Your task to perform on an android device: open chrome and create a bookmark for the current page Image 0: 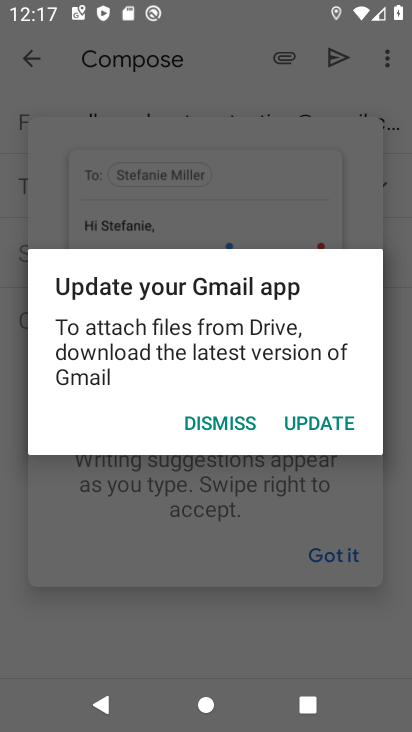
Step 0: press home button
Your task to perform on an android device: open chrome and create a bookmark for the current page Image 1: 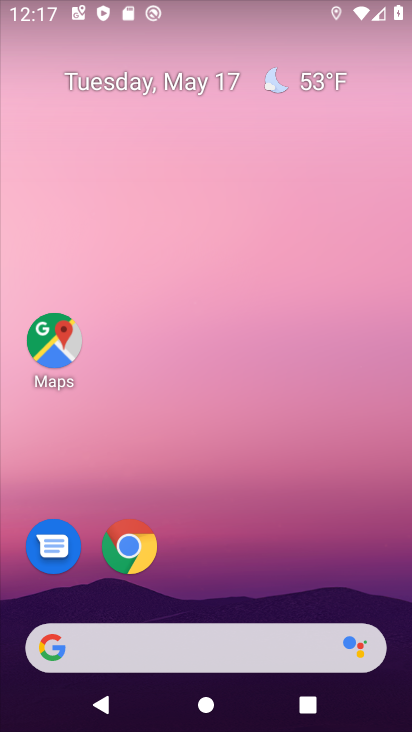
Step 1: click (124, 553)
Your task to perform on an android device: open chrome and create a bookmark for the current page Image 2: 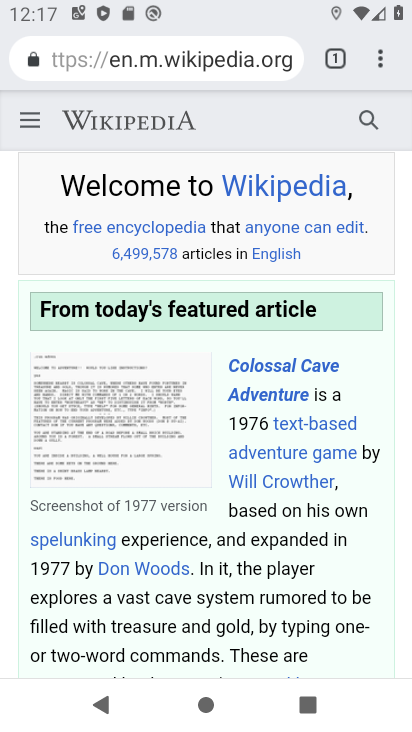
Step 2: click (374, 55)
Your task to perform on an android device: open chrome and create a bookmark for the current page Image 3: 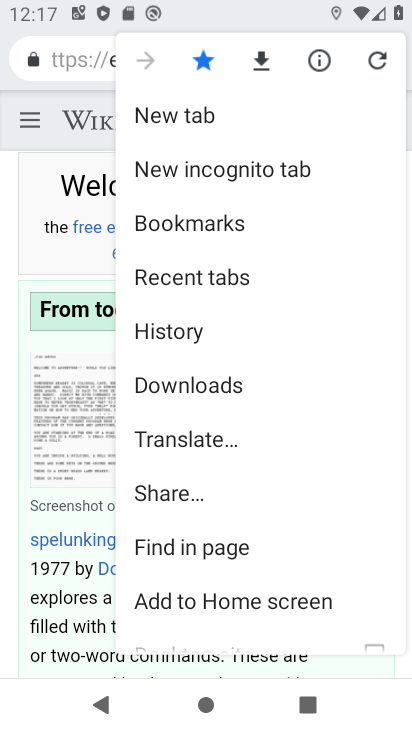
Step 3: drag from (293, 544) to (275, 149)
Your task to perform on an android device: open chrome and create a bookmark for the current page Image 4: 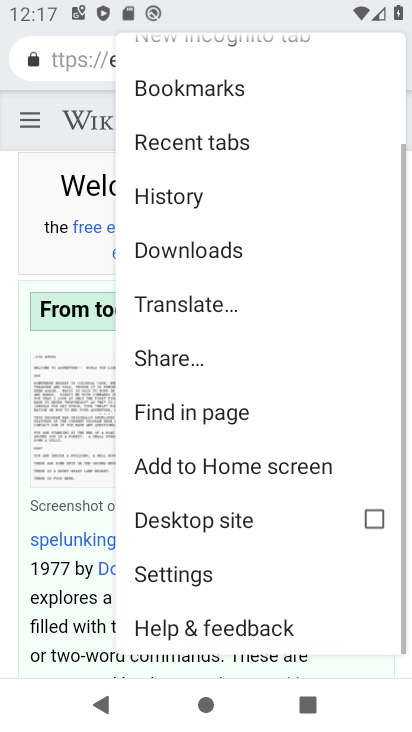
Step 4: click (194, 575)
Your task to perform on an android device: open chrome and create a bookmark for the current page Image 5: 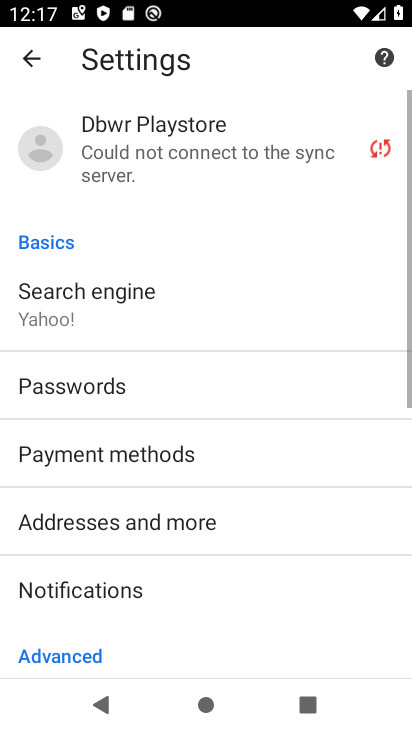
Step 5: drag from (231, 410) to (211, 155)
Your task to perform on an android device: open chrome and create a bookmark for the current page Image 6: 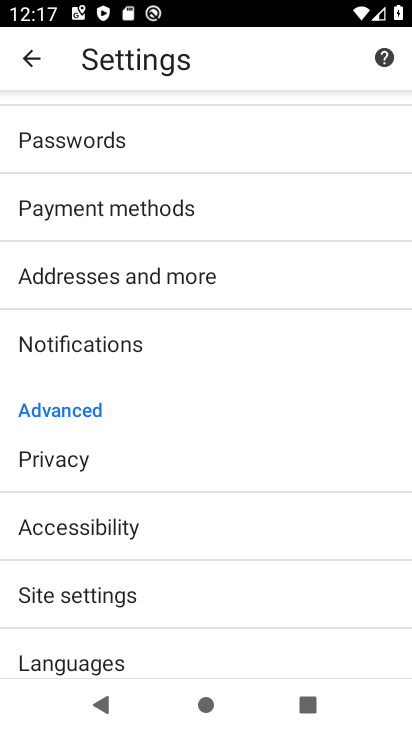
Step 6: drag from (226, 305) to (238, 615)
Your task to perform on an android device: open chrome and create a bookmark for the current page Image 7: 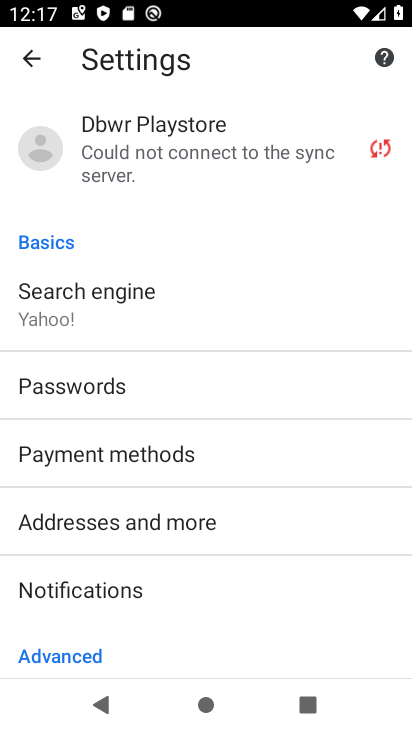
Step 7: press back button
Your task to perform on an android device: open chrome and create a bookmark for the current page Image 8: 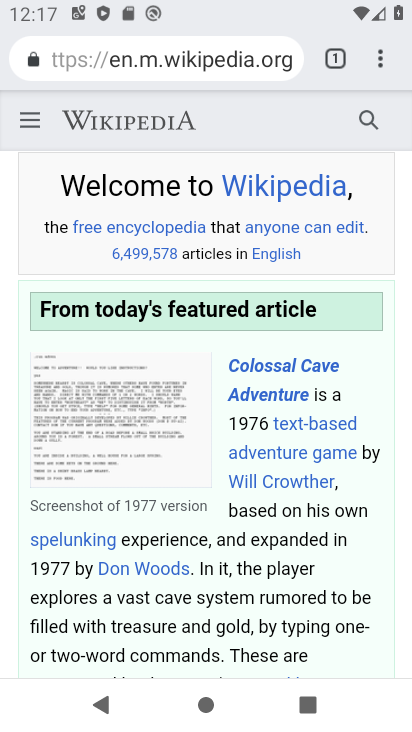
Step 8: click (374, 60)
Your task to perform on an android device: open chrome and create a bookmark for the current page Image 9: 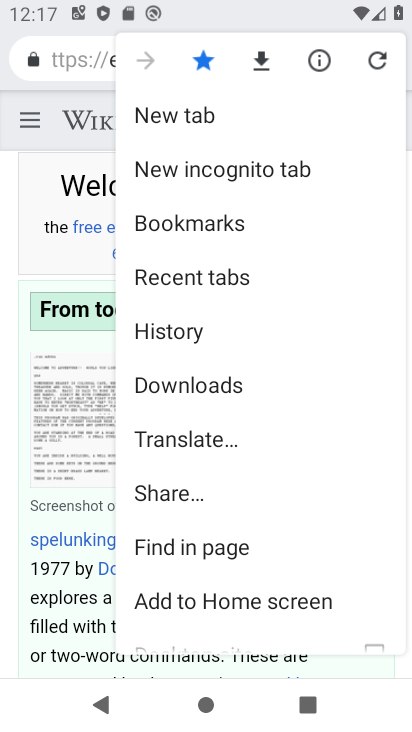
Step 9: task complete